Your task to perform on an android device: When is my next meeting? Image 0: 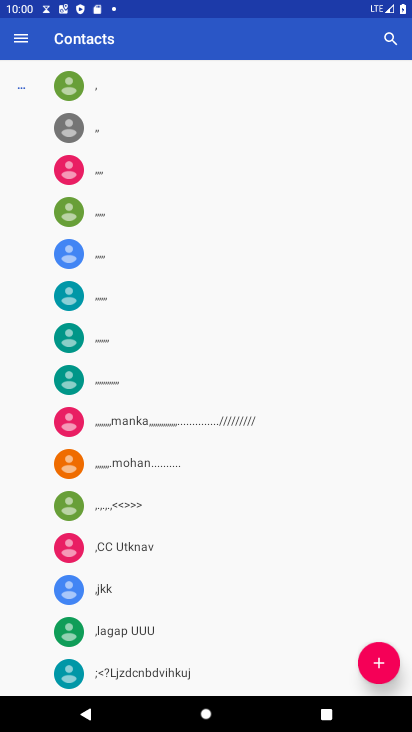
Step 0: press home button
Your task to perform on an android device: When is my next meeting? Image 1: 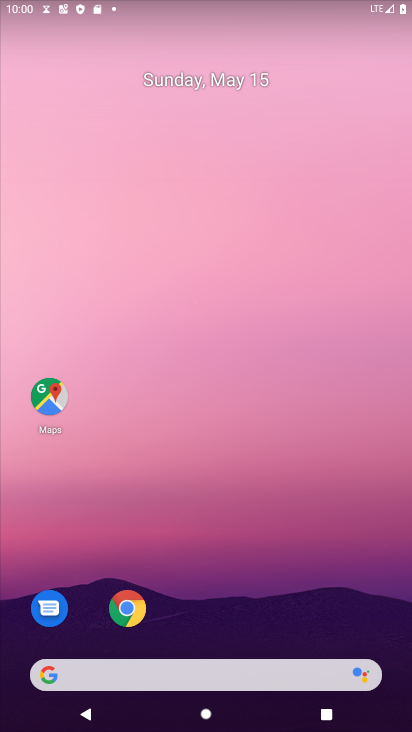
Step 1: drag from (294, 555) to (319, 31)
Your task to perform on an android device: When is my next meeting? Image 2: 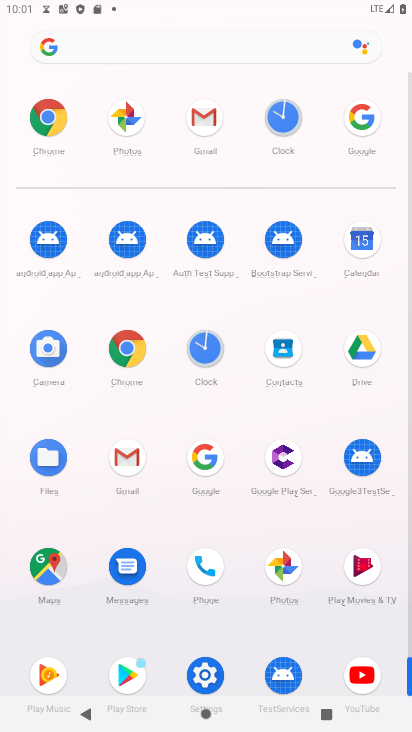
Step 2: click (363, 255)
Your task to perform on an android device: When is my next meeting? Image 3: 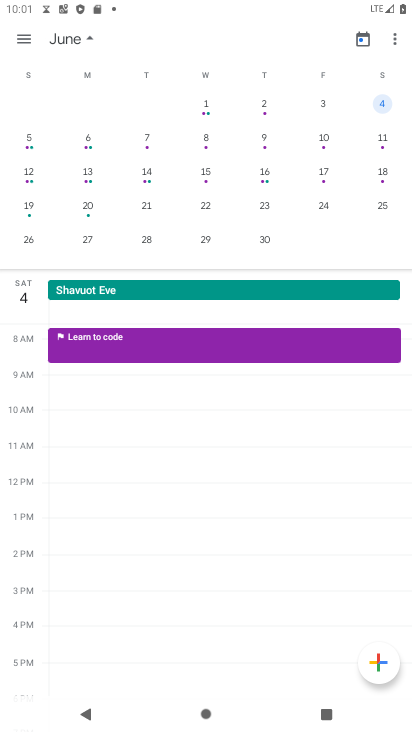
Step 3: click (33, 131)
Your task to perform on an android device: When is my next meeting? Image 4: 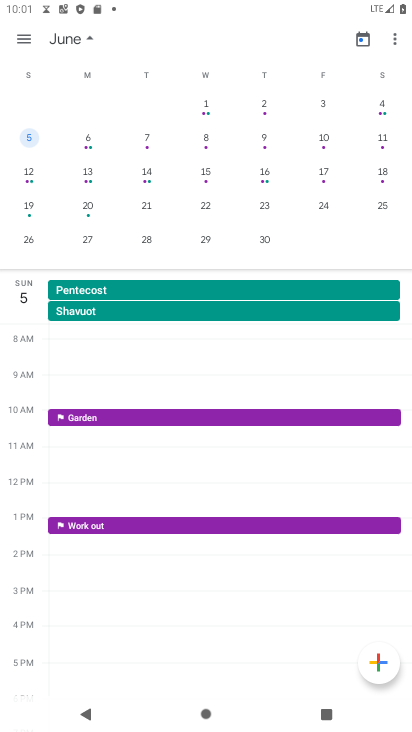
Step 4: task complete